Your task to perform on an android device: snooze an email in the gmail app Image 0: 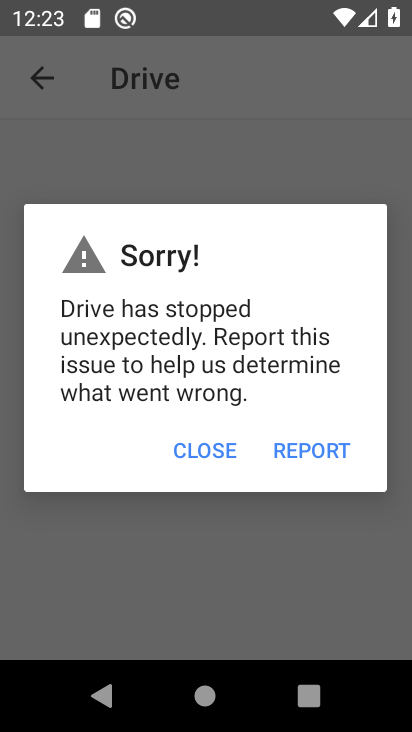
Step 0: press home button
Your task to perform on an android device: snooze an email in the gmail app Image 1: 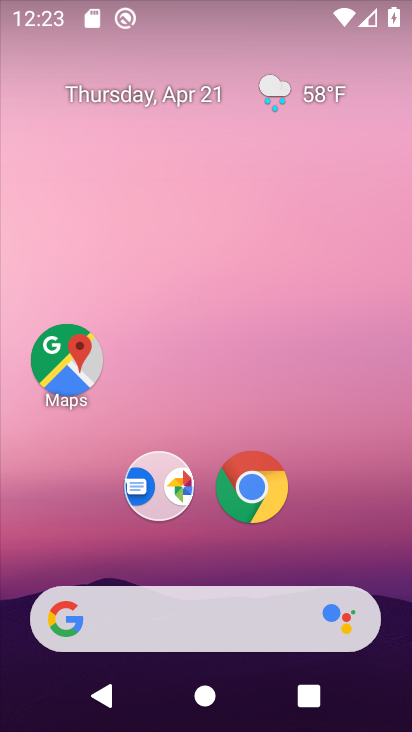
Step 1: drag from (177, 650) to (265, 149)
Your task to perform on an android device: snooze an email in the gmail app Image 2: 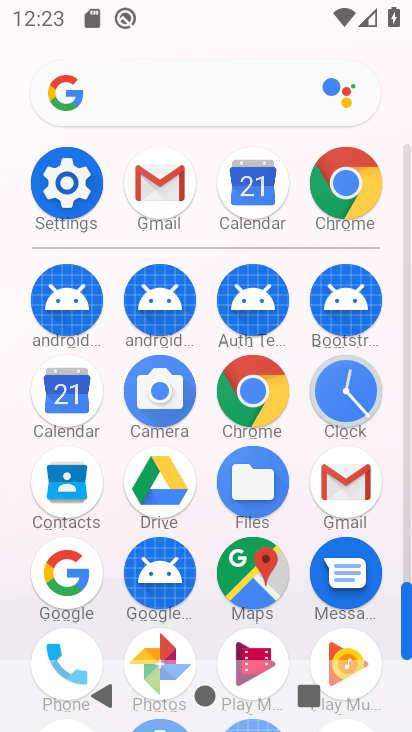
Step 2: click (245, 384)
Your task to perform on an android device: snooze an email in the gmail app Image 3: 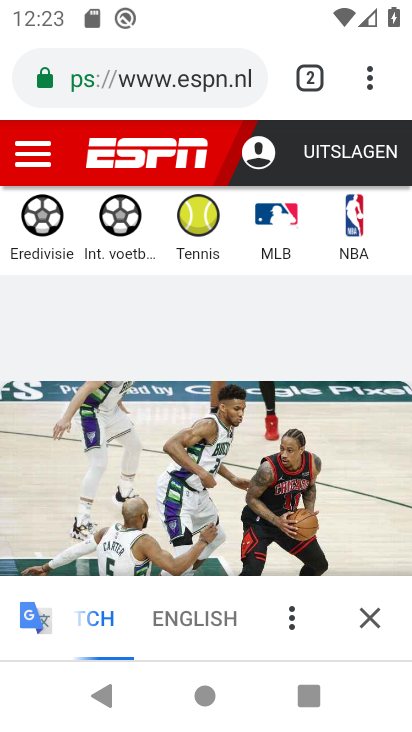
Step 3: press home button
Your task to perform on an android device: snooze an email in the gmail app Image 4: 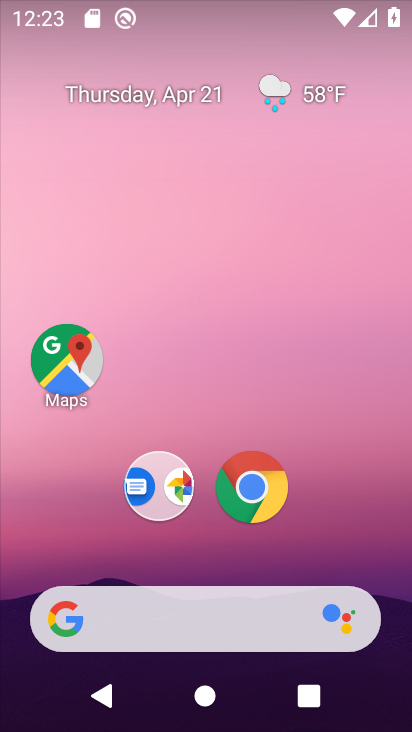
Step 4: drag from (285, 619) to (327, 80)
Your task to perform on an android device: snooze an email in the gmail app Image 5: 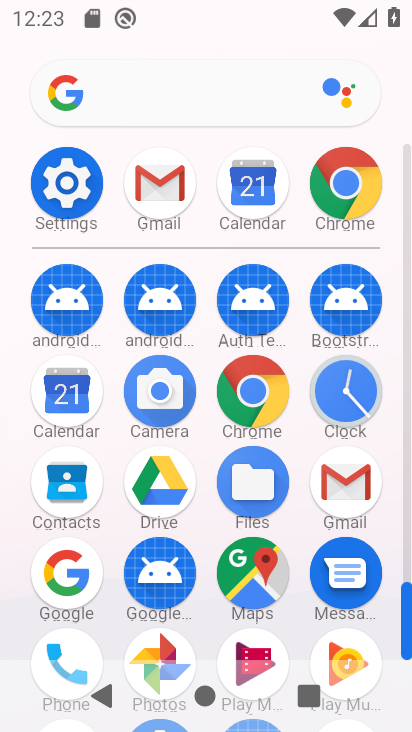
Step 5: click (161, 195)
Your task to perform on an android device: snooze an email in the gmail app Image 6: 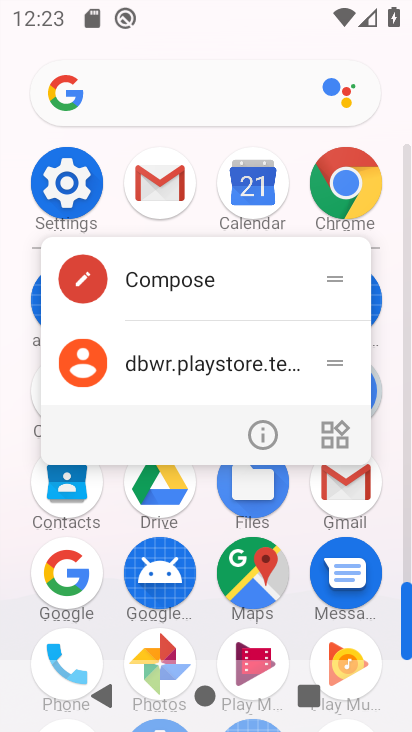
Step 6: click (161, 191)
Your task to perform on an android device: snooze an email in the gmail app Image 7: 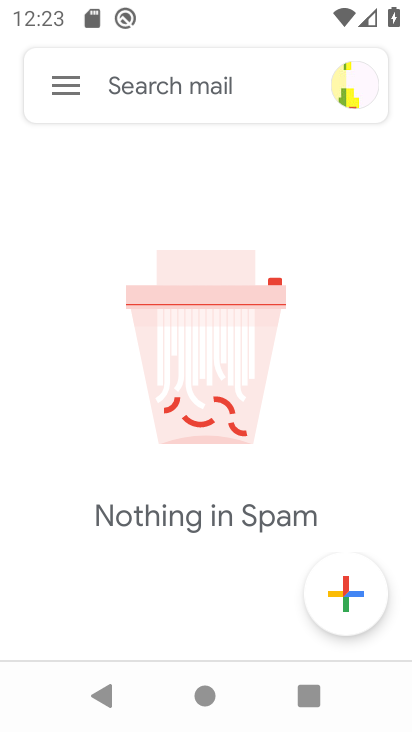
Step 7: click (63, 78)
Your task to perform on an android device: snooze an email in the gmail app Image 8: 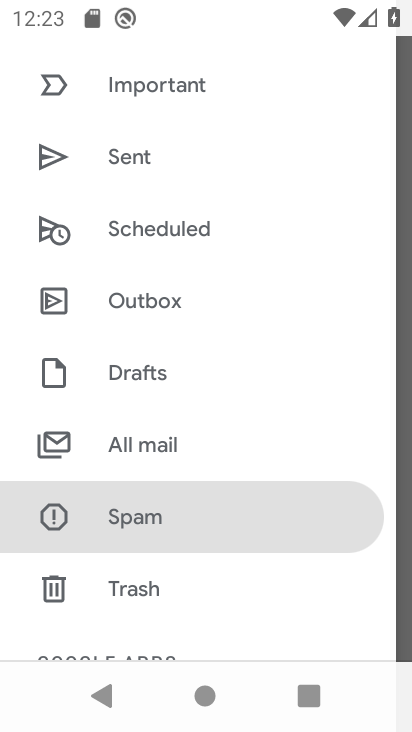
Step 8: drag from (151, 207) to (153, 426)
Your task to perform on an android device: snooze an email in the gmail app Image 9: 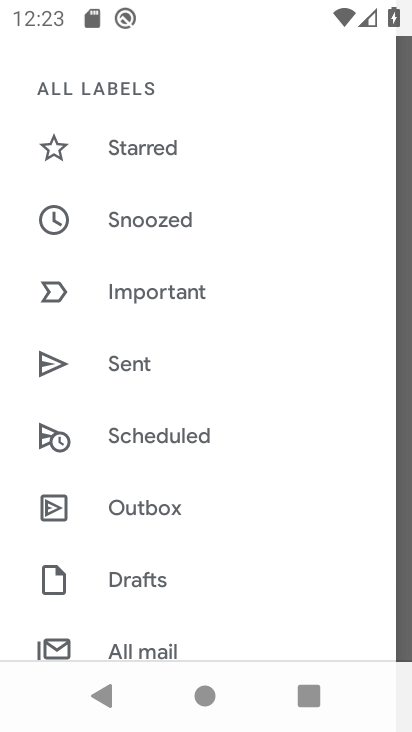
Step 9: click (145, 213)
Your task to perform on an android device: snooze an email in the gmail app Image 10: 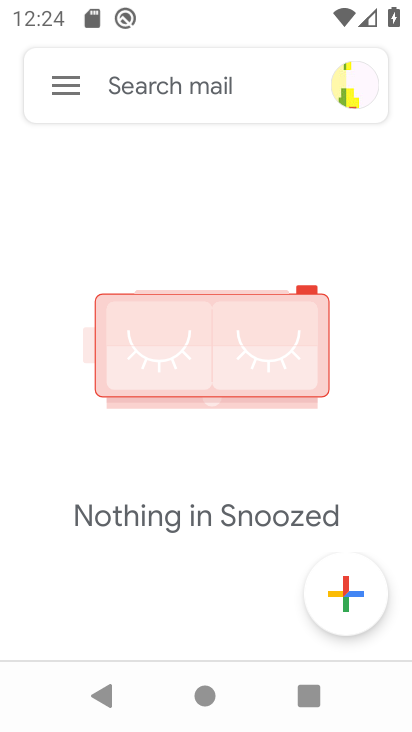
Step 10: task complete